Your task to perform on an android device: find which apps use the phone's location Image 0: 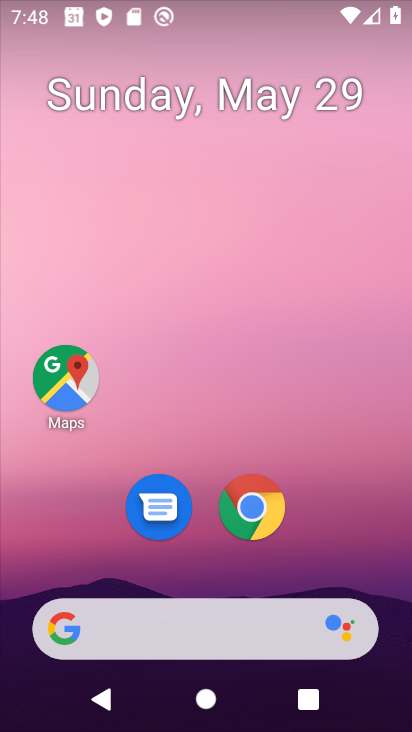
Step 0: drag from (359, 541) to (313, 136)
Your task to perform on an android device: find which apps use the phone's location Image 1: 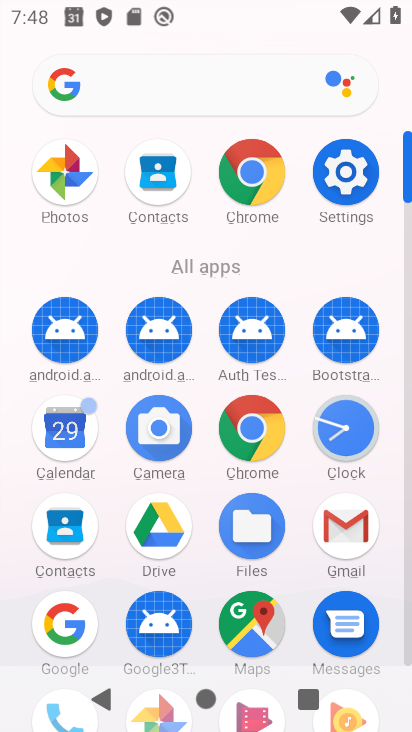
Step 1: click (348, 166)
Your task to perform on an android device: find which apps use the phone's location Image 2: 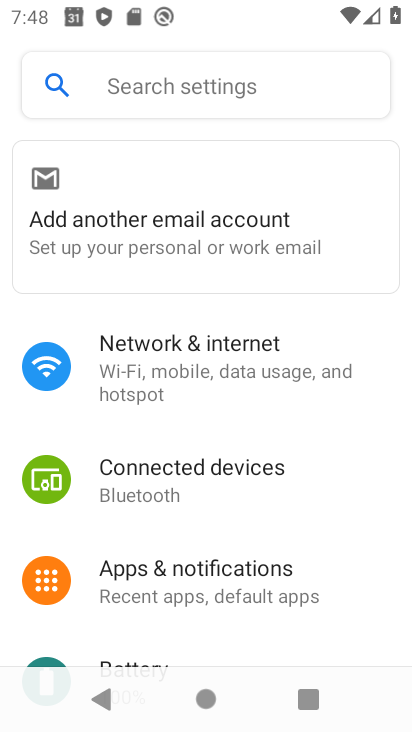
Step 2: drag from (178, 637) to (234, 230)
Your task to perform on an android device: find which apps use the phone's location Image 3: 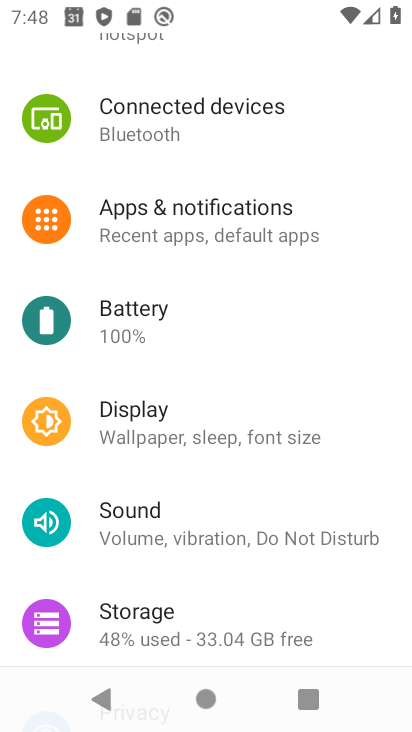
Step 3: drag from (196, 525) to (230, 149)
Your task to perform on an android device: find which apps use the phone's location Image 4: 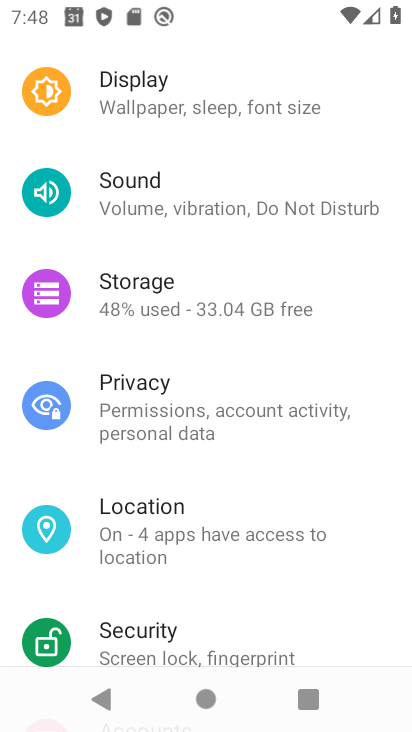
Step 4: drag from (148, 492) to (236, 232)
Your task to perform on an android device: find which apps use the phone's location Image 5: 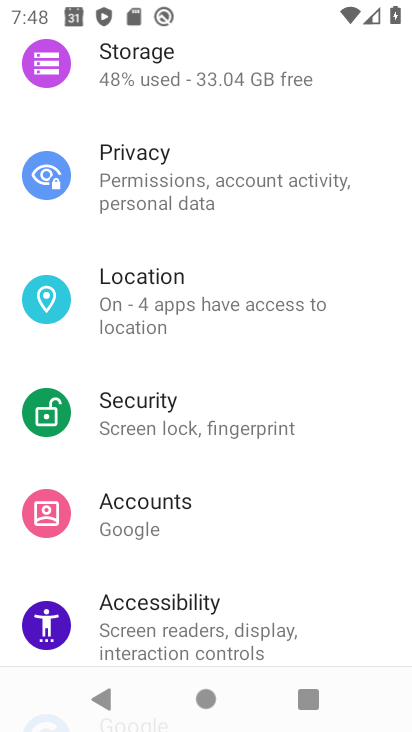
Step 5: click (193, 279)
Your task to perform on an android device: find which apps use the phone's location Image 6: 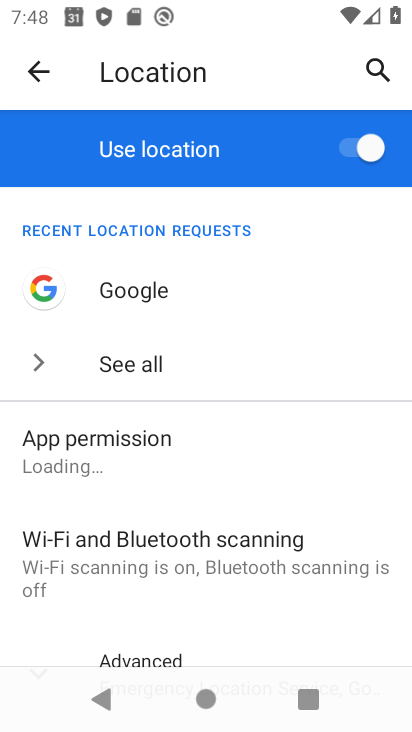
Step 6: click (171, 654)
Your task to perform on an android device: find which apps use the phone's location Image 7: 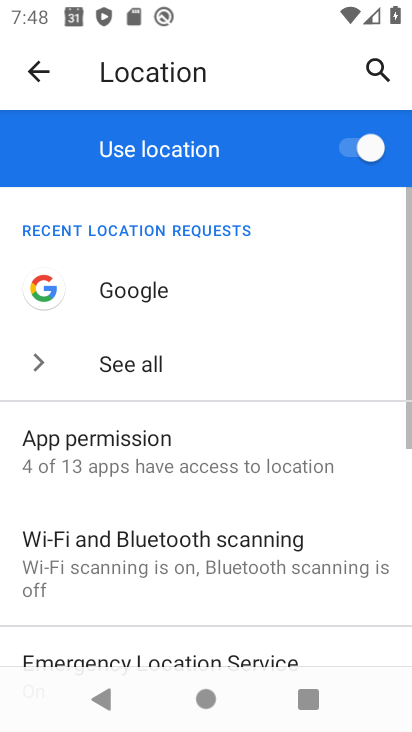
Step 7: drag from (174, 632) to (177, 580)
Your task to perform on an android device: find which apps use the phone's location Image 8: 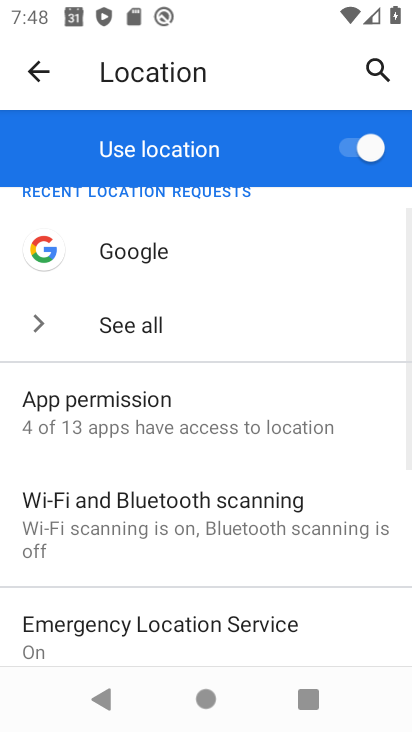
Step 8: drag from (173, 424) to (222, 289)
Your task to perform on an android device: find which apps use the phone's location Image 9: 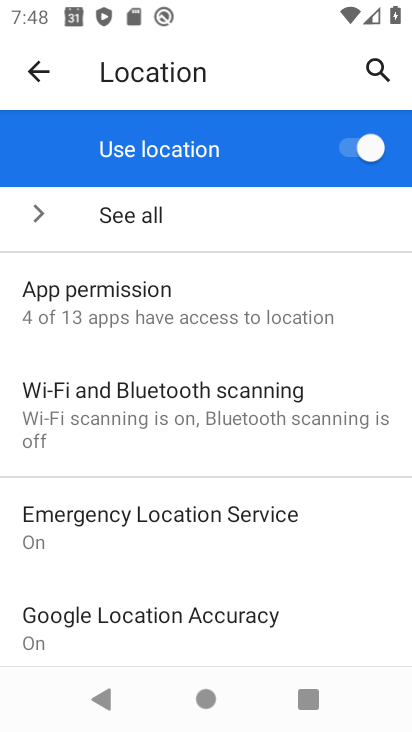
Step 9: click (189, 294)
Your task to perform on an android device: find which apps use the phone's location Image 10: 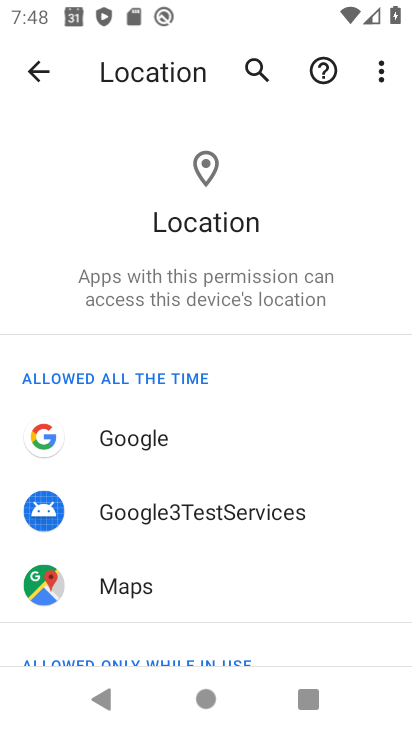
Step 10: task complete